Your task to perform on an android device: Open Chrome and go to settings Image 0: 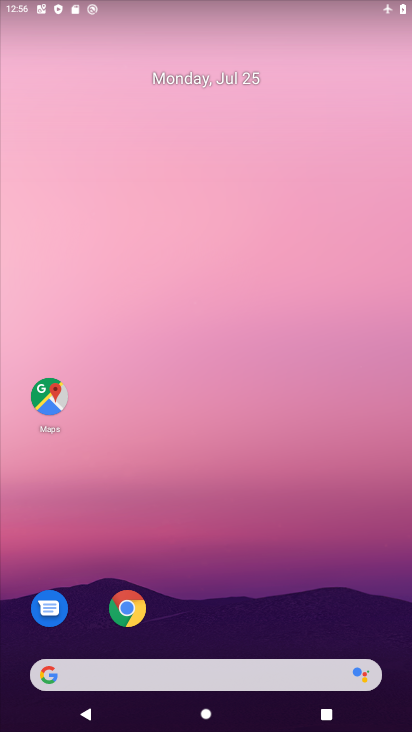
Step 0: click (130, 617)
Your task to perform on an android device: Open Chrome and go to settings Image 1: 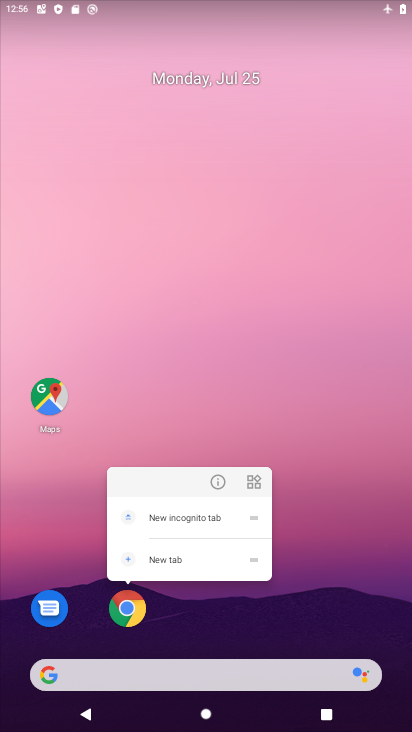
Step 1: click (130, 617)
Your task to perform on an android device: Open Chrome and go to settings Image 2: 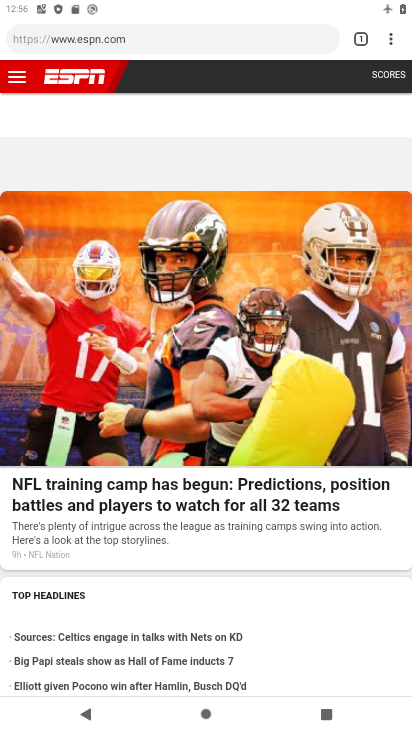
Step 2: task complete